Your task to perform on an android device: Clear all items from cart on amazon.com. Search for "asus rog" on amazon.com, select the first entry, and add it to the cart. Image 0: 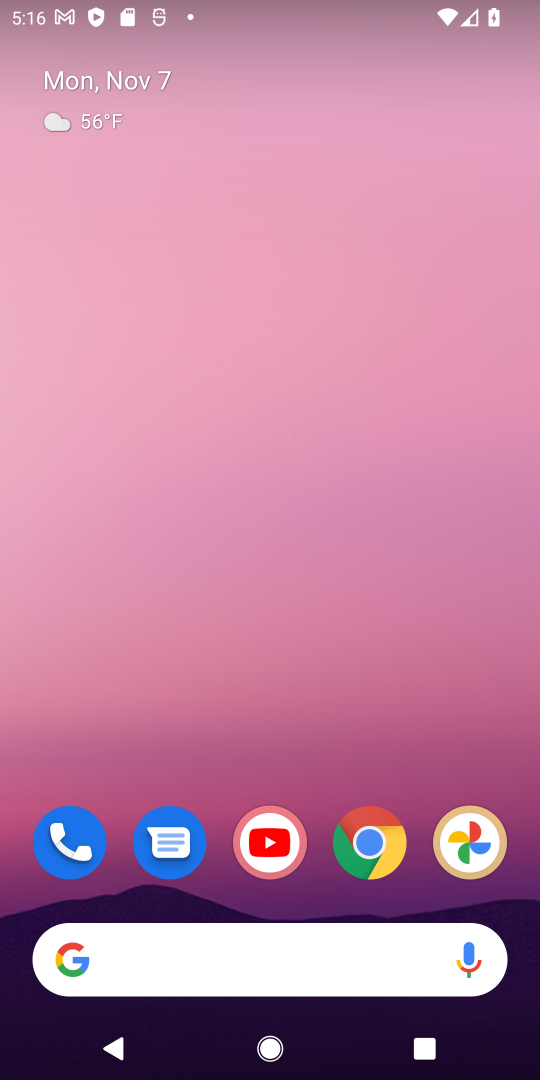
Step 0: click (372, 843)
Your task to perform on an android device: Clear all items from cart on amazon.com. Search for "asus rog" on amazon.com, select the first entry, and add it to the cart. Image 1: 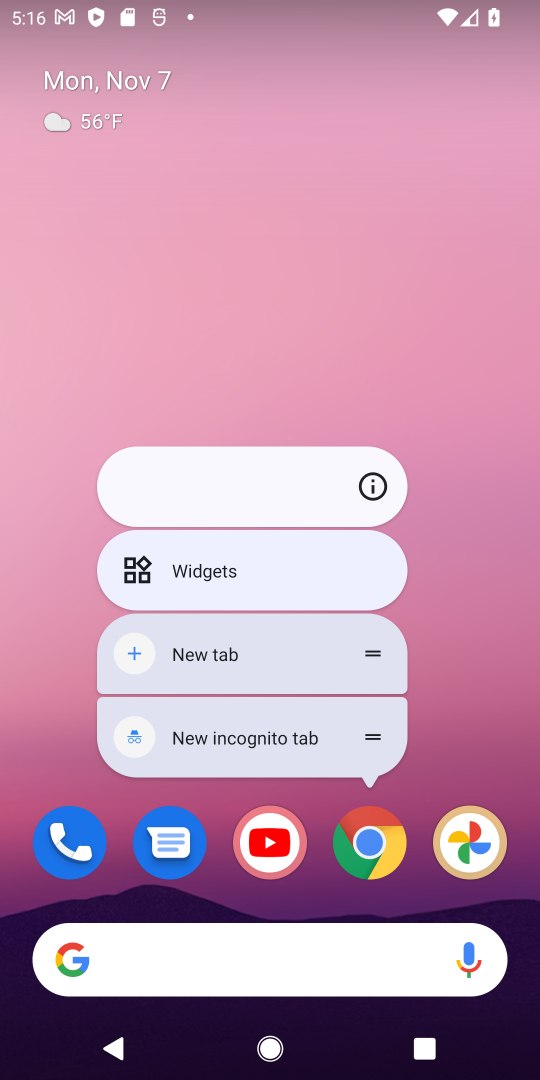
Step 1: click (357, 852)
Your task to perform on an android device: Clear all items from cart on amazon.com. Search for "asus rog" on amazon.com, select the first entry, and add it to the cart. Image 2: 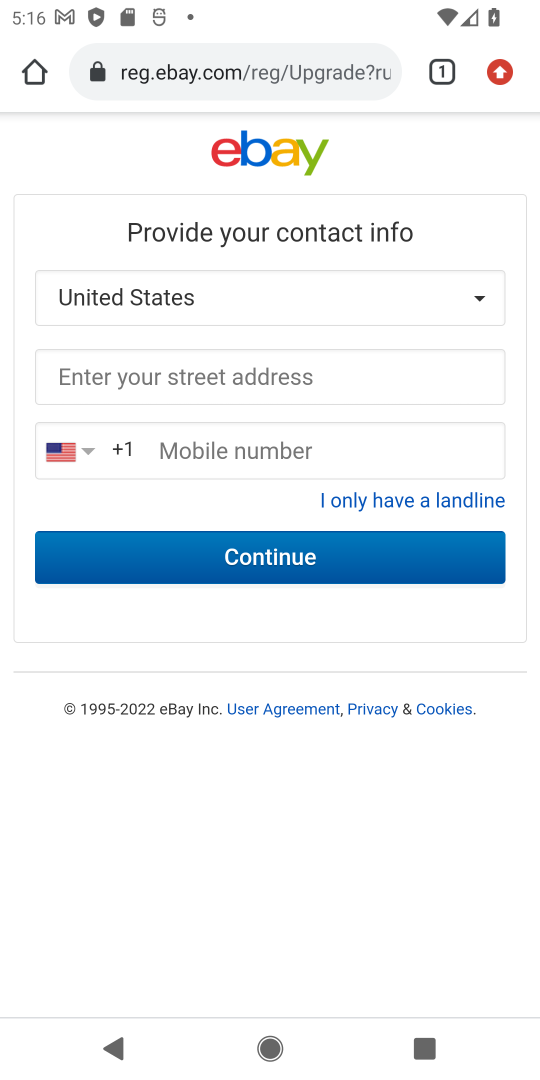
Step 2: click (304, 68)
Your task to perform on an android device: Clear all items from cart on amazon.com. Search for "asus rog" on amazon.com, select the first entry, and add it to the cart. Image 3: 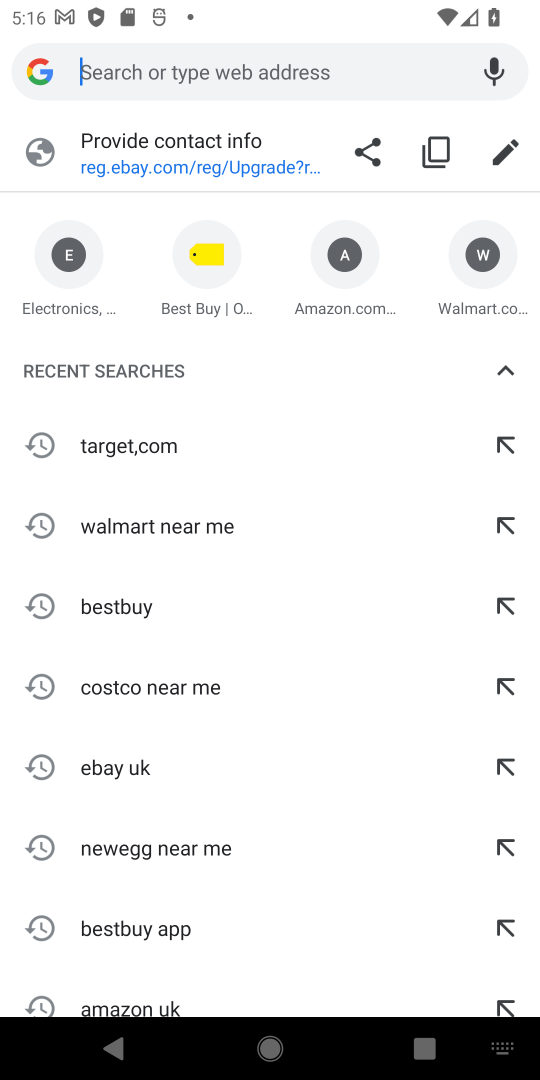
Step 3: click (371, 309)
Your task to perform on an android device: Clear all items from cart on amazon.com. Search for "asus rog" on amazon.com, select the first entry, and add it to the cart. Image 4: 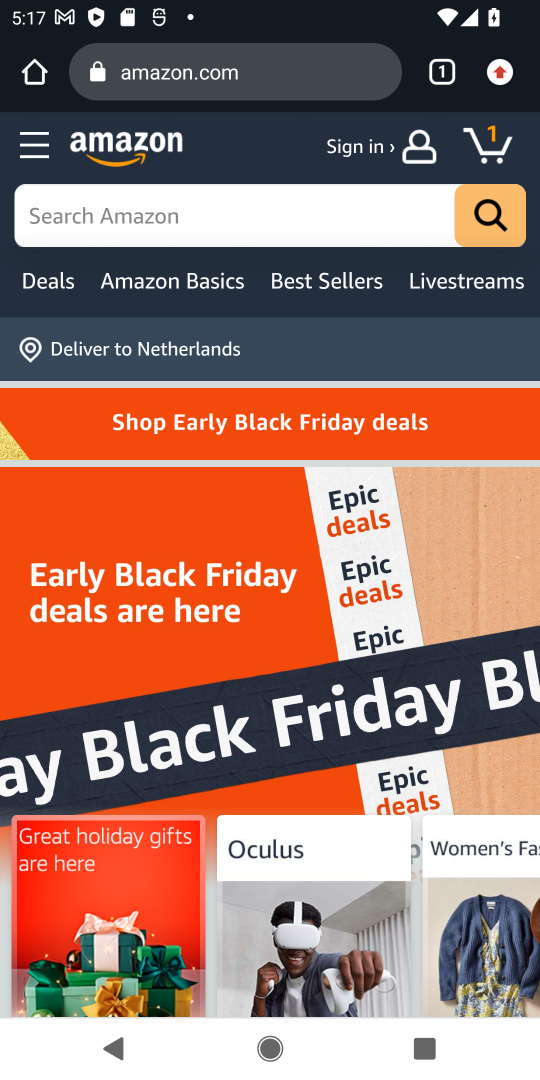
Step 4: click (497, 136)
Your task to perform on an android device: Clear all items from cart on amazon.com. Search for "asus rog" on amazon.com, select the first entry, and add it to the cart. Image 5: 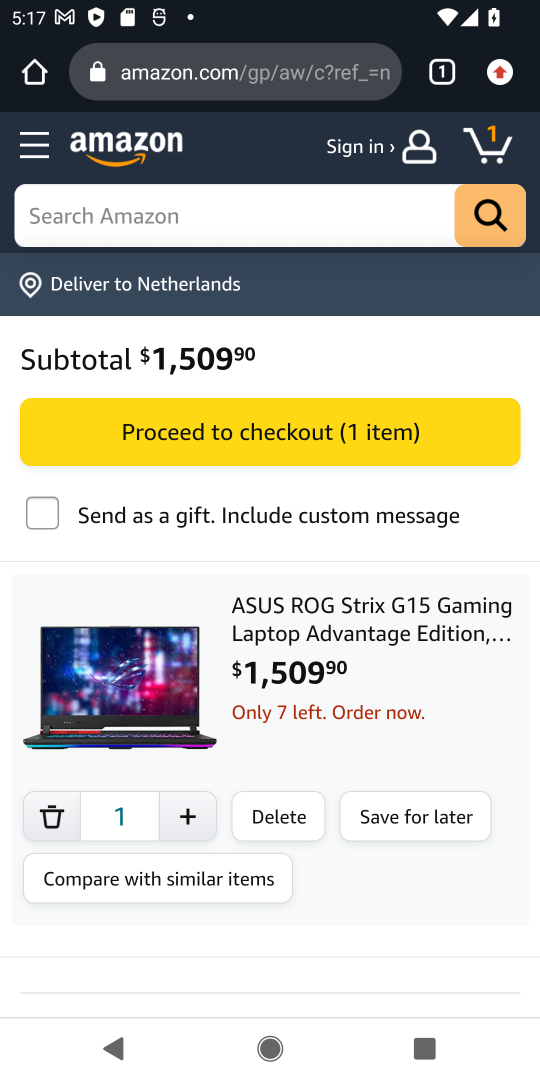
Step 5: click (266, 814)
Your task to perform on an android device: Clear all items from cart on amazon.com. Search for "asus rog" on amazon.com, select the first entry, and add it to the cart. Image 6: 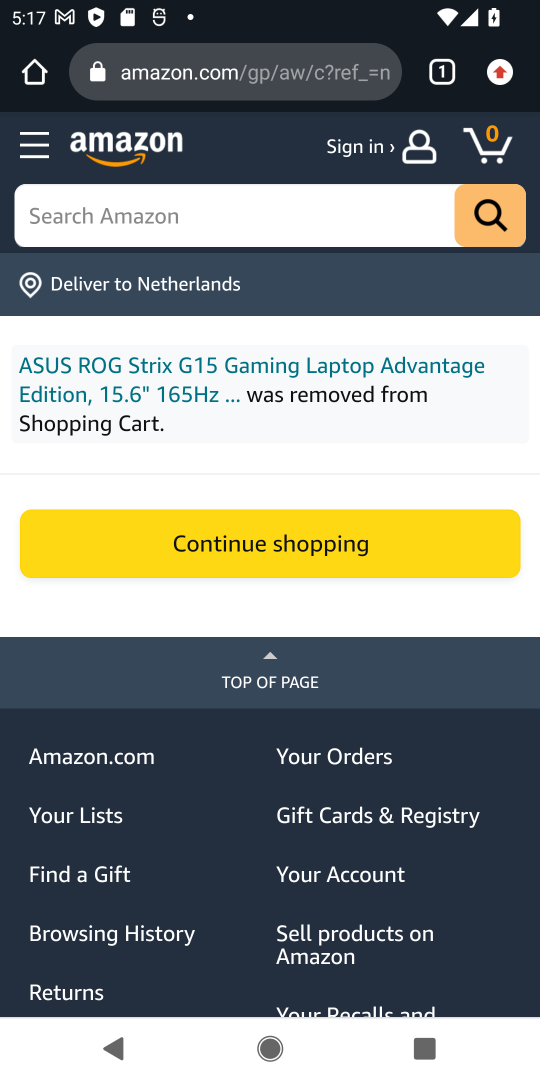
Step 6: click (236, 217)
Your task to perform on an android device: Clear all items from cart on amazon.com. Search for "asus rog" on amazon.com, select the first entry, and add it to the cart. Image 7: 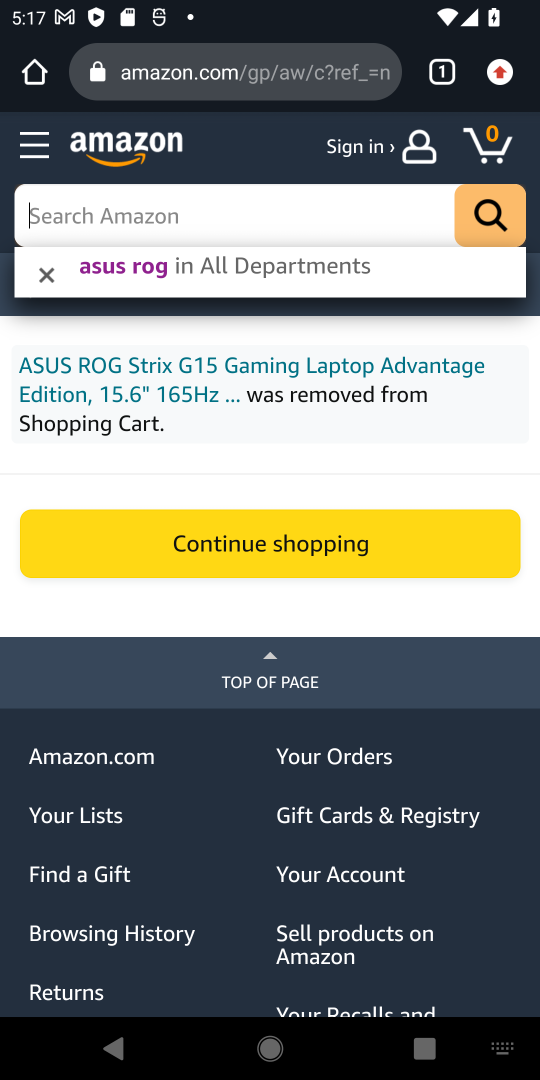
Step 7: type "asus rog"
Your task to perform on an android device: Clear all items from cart on amazon.com. Search for "asus rog" on amazon.com, select the first entry, and add it to the cart. Image 8: 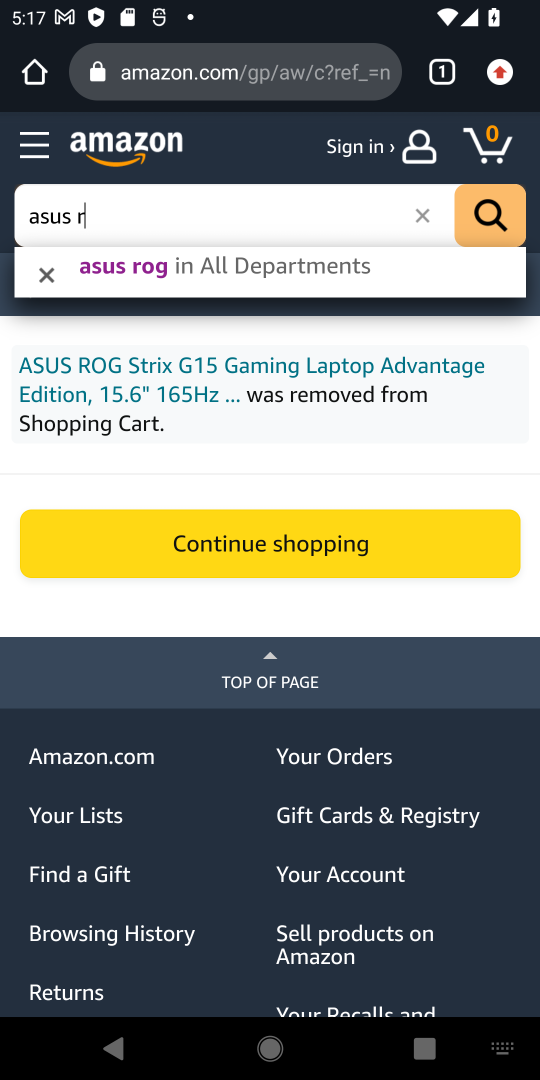
Step 8: press enter
Your task to perform on an android device: Clear all items from cart on amazon.com. Search for "asus rog" on amazon.com, select the first entry, and add it to the cart. Image 9: 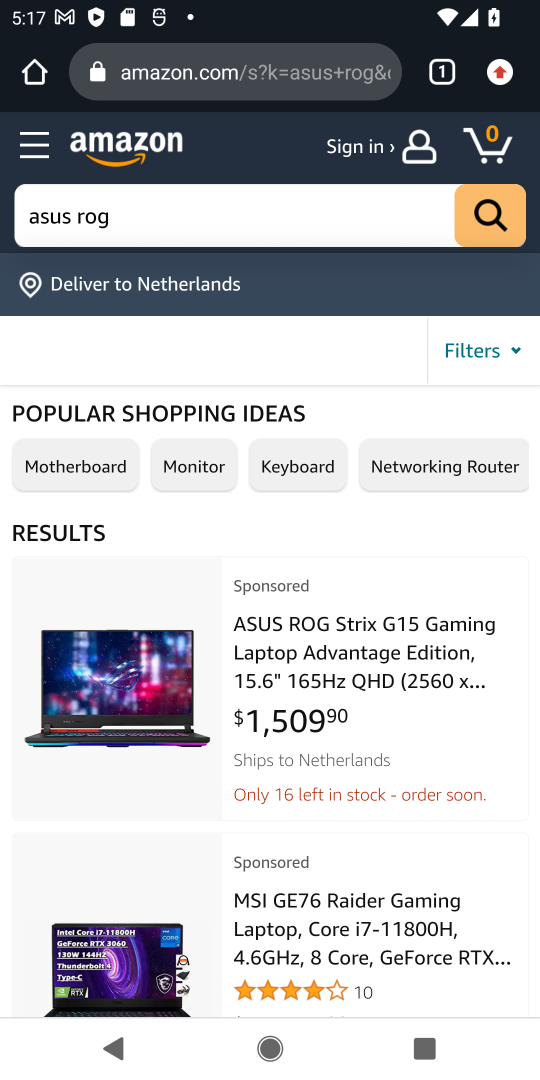
Step 9: click (380, 643)
Your task to perform on an android device: Clear all items from cart on amazon.com. Search for "asus rog" on amazon.com, select the first entry, and add it to the cart. Image 10: 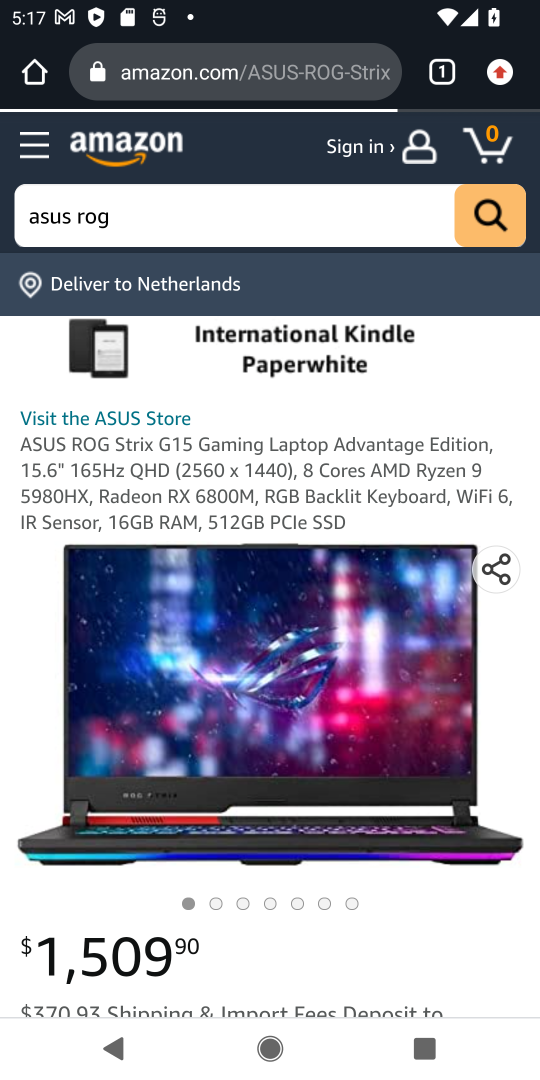
Step 10: drag from (316, 934) to (512, 207)
Your task to perform on an android device: Clear all items from cart on amazon.com. Search for "asus rog" on amazon.com, select the first entry, and add it to the cart. Image 11: 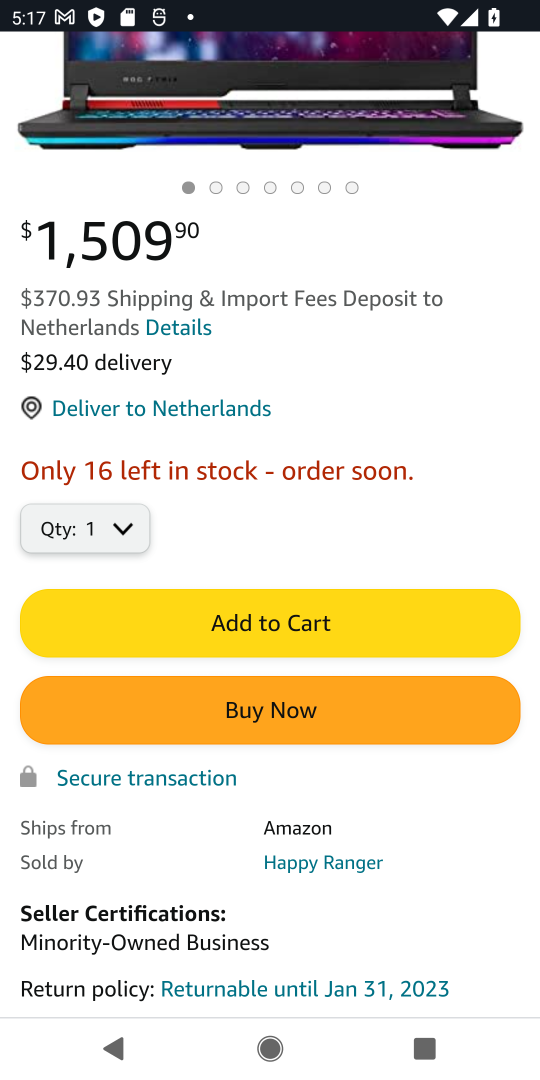
Step 11: click (298, 623)
Your task to perform on an android device: Clear all items from cart on amazon.com. Search for "asus rog" on amazon.com, select the first entry, and add it to the cart. Image 12: 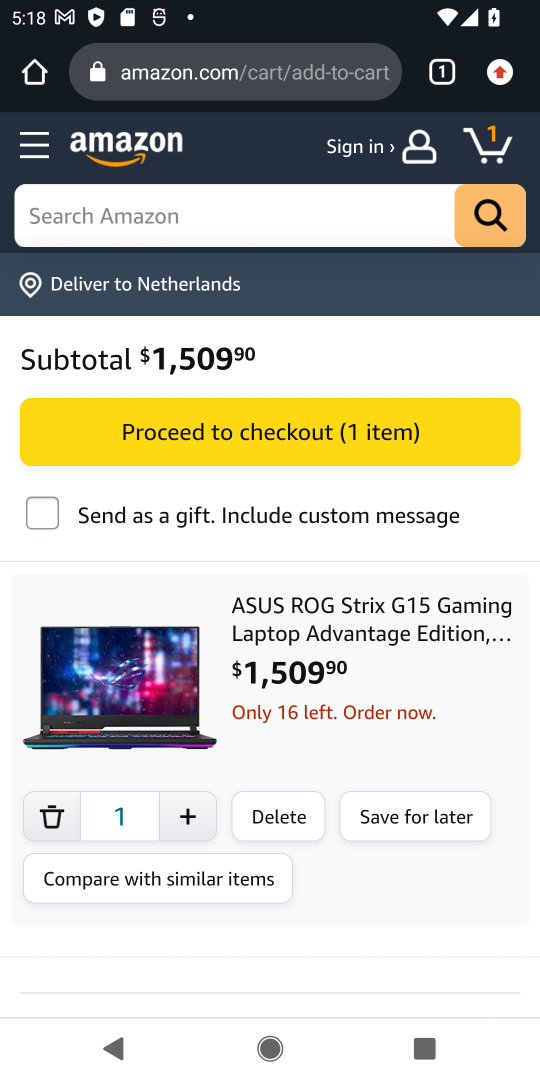
Step 12: task complete